Your task to perform on an android device: Open settings Image 0: 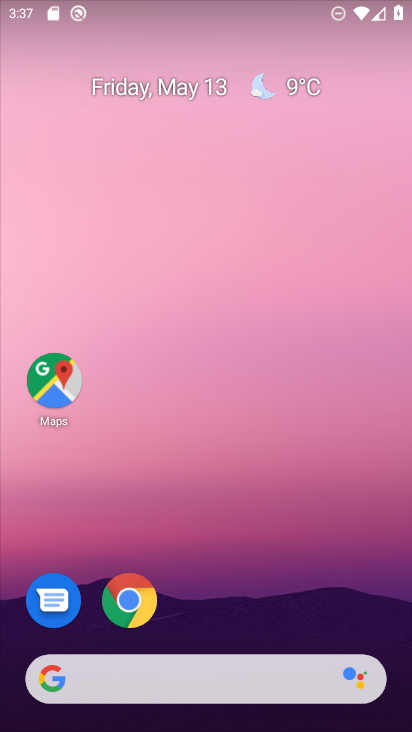
Step 0: click (249, 115)
Your task to perform on an android device: Open settings Image 1: 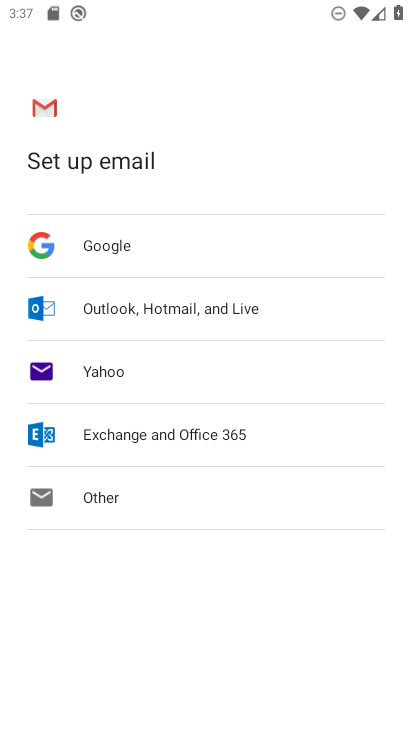
Step 1: press home button
Your task to perform on an android device: Open settings Image 2: 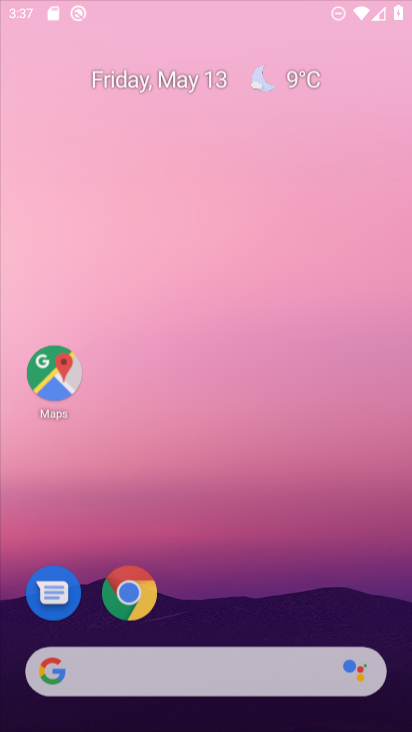
Step 2: drag from (278, 600) to (411, 62)
Your task to perform on an android device: Open settings Image 3: 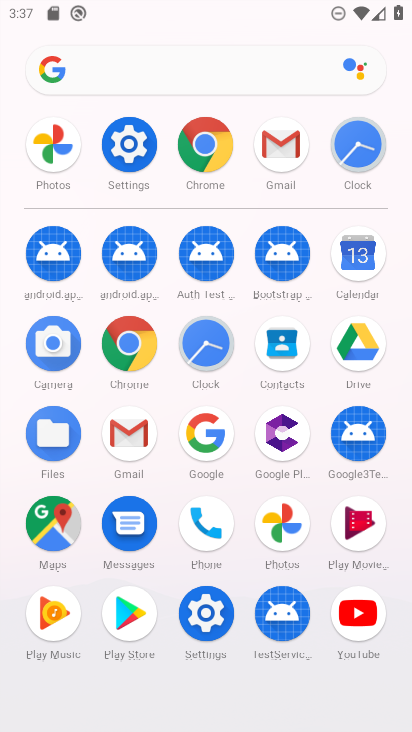
Step 3: click (125, 154)
Your task to perform on an android device: Open settings Image 4: 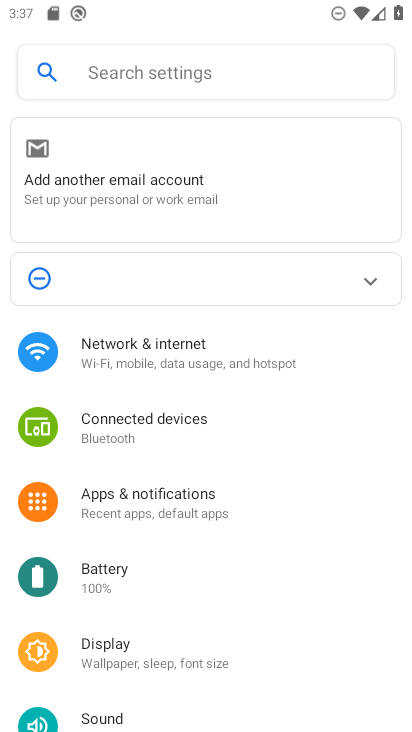
Step 4: task complete